Your task to perform on an android device: toggle wifi Image 0: 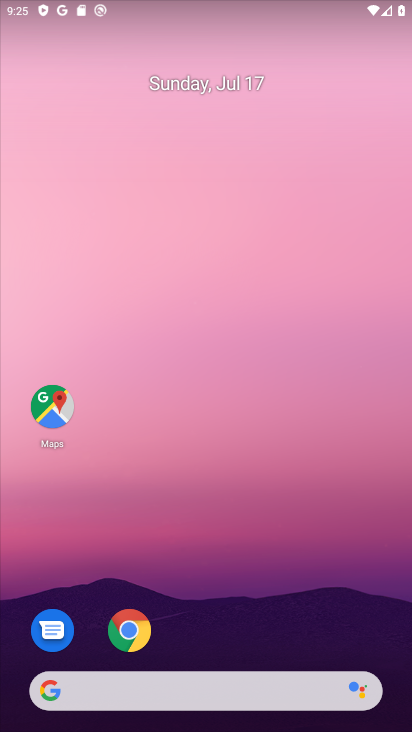
Step 0: drag from (226, 634) to (250, 87)
Your task to perform on an android device: toggle wifi Image 1: 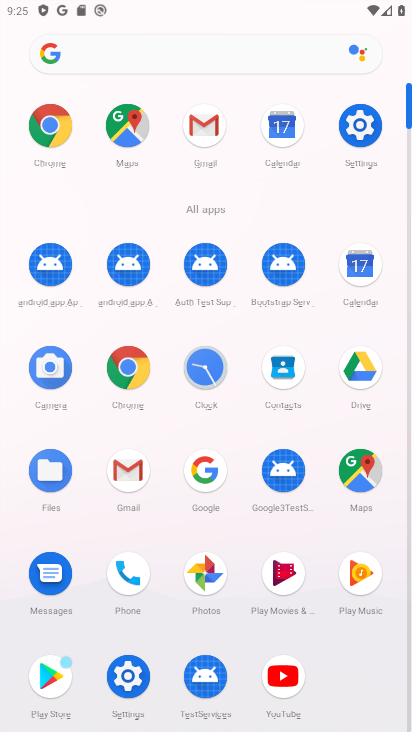
Step 1: drag from (270, 4) to (257, 483)
Your task to perform on an android device: toggle wifi Image 2: 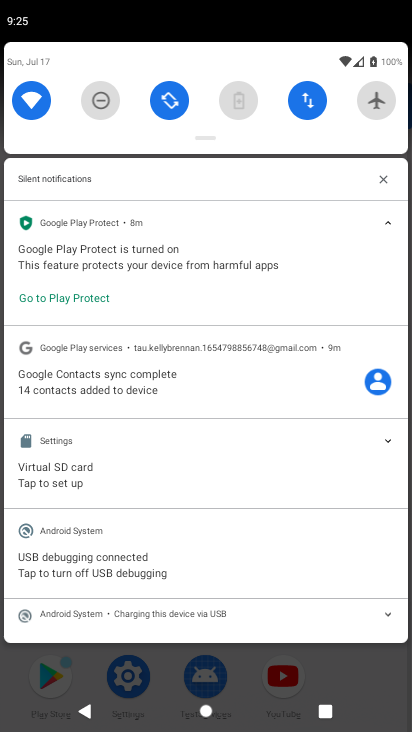
Step 2: click (24, 96)
Your task to perform on an android device: toggle wifi Image 3: 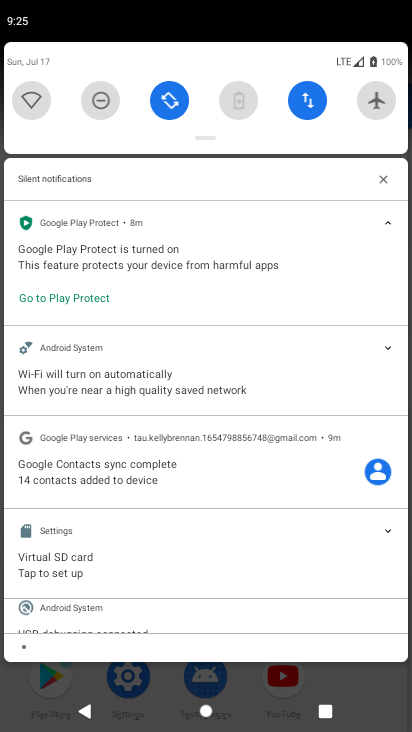
Step 3: task complete